Your task to perform on an android device: What's on my calendar tomorrow? Image 0: 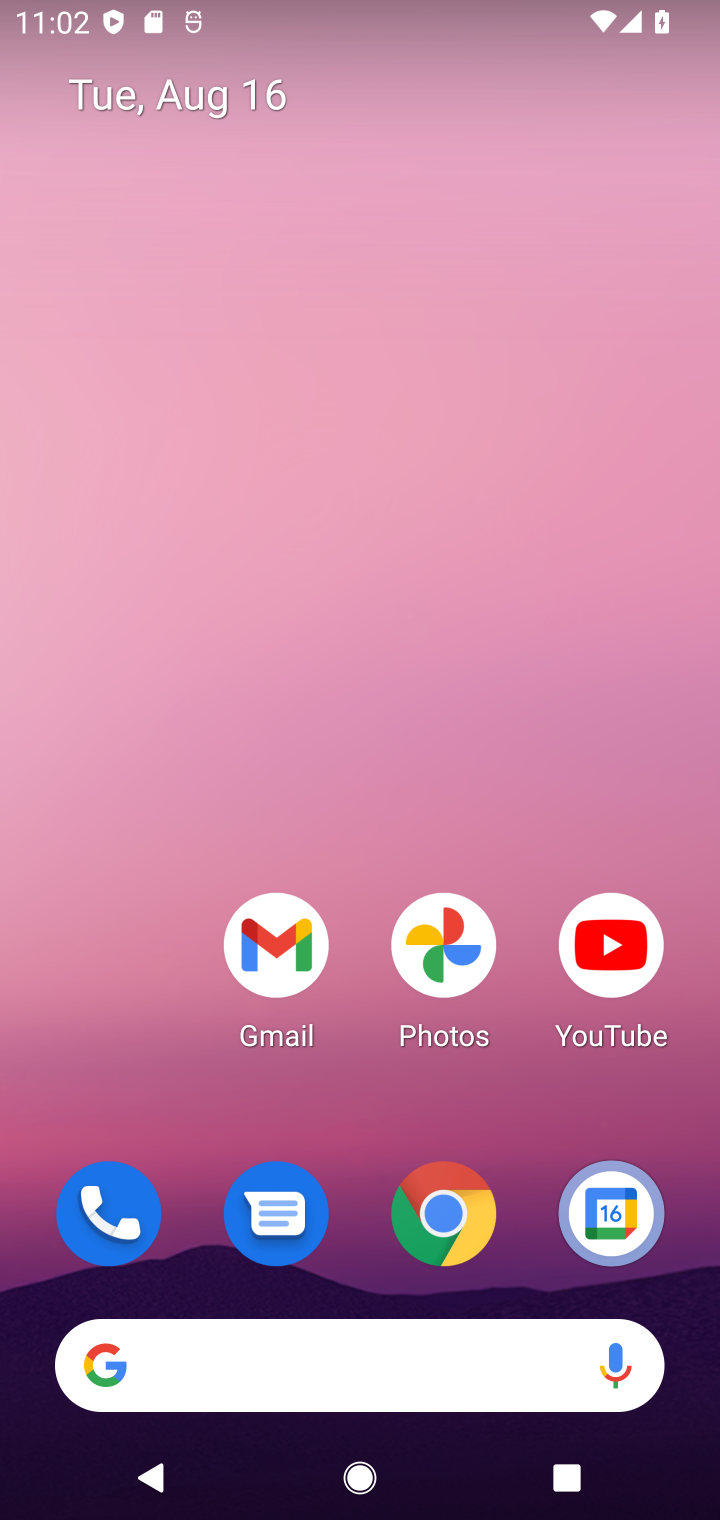
Step 0: drag from (363, 588) to (396, 0)
Your task to perform on an android device: What's on my calendar tomorrow? Image 1: 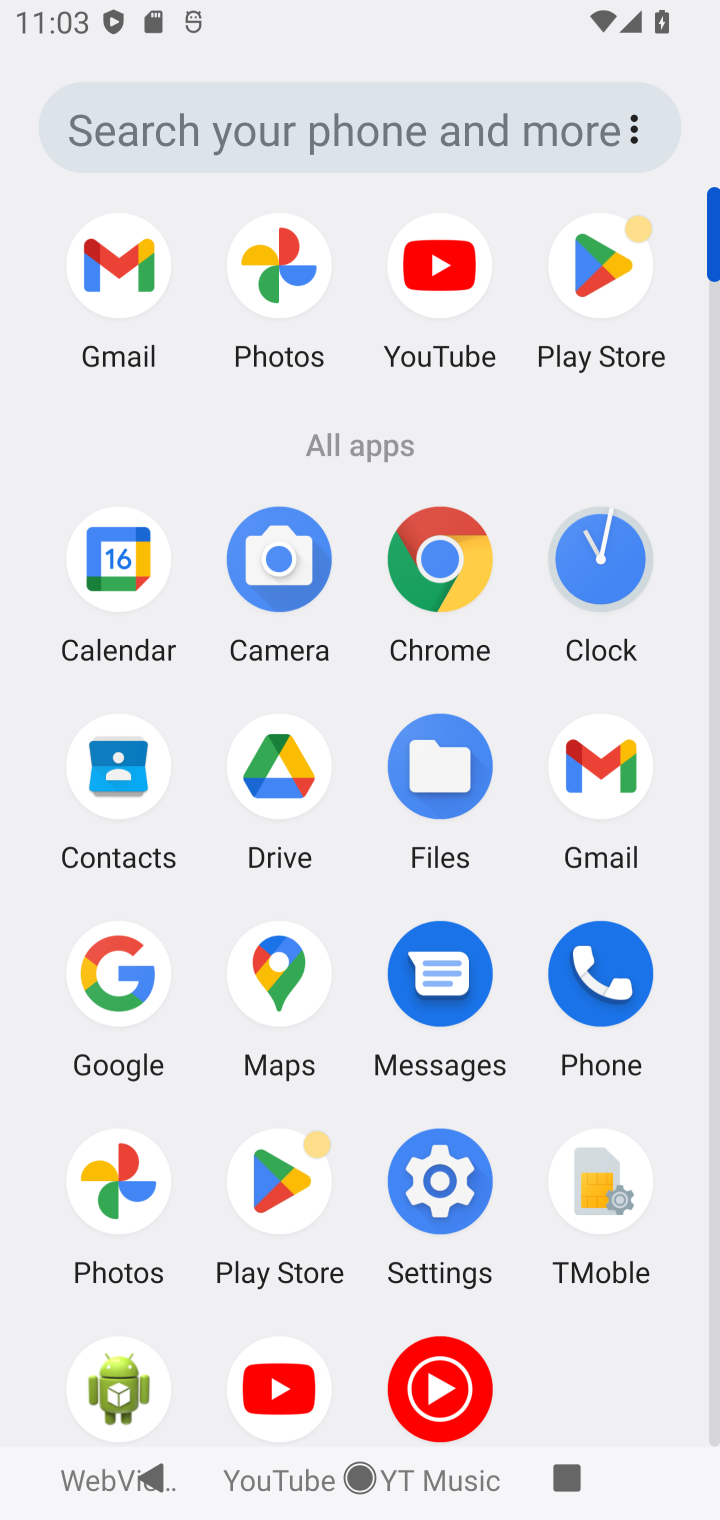
Step 1: click (110, 699)
Your task to perform on an android device: What's on my calendar tomorrow? Image 2: 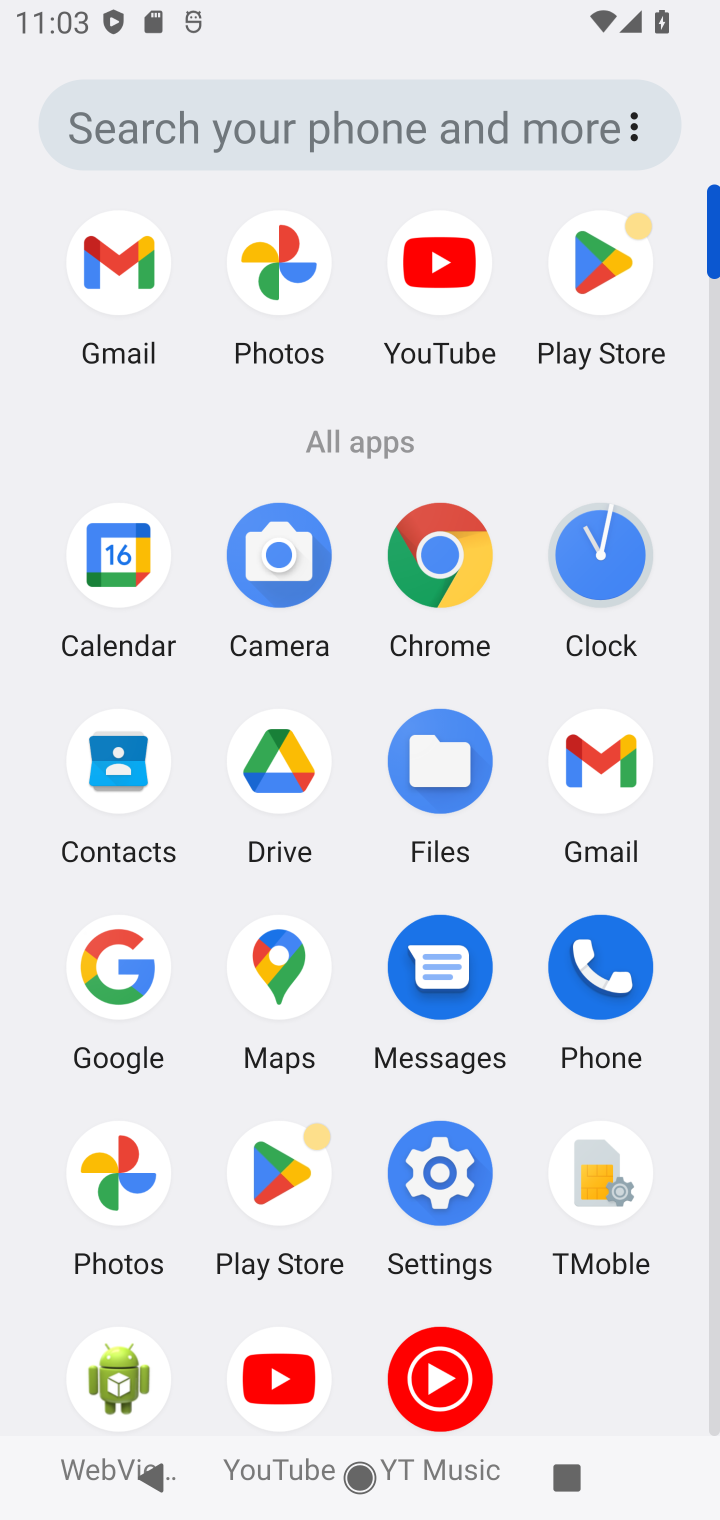
Step 2: click (124, 538)
Your task to perform on an android device: What's on my calendar tomorrow? Image 3: 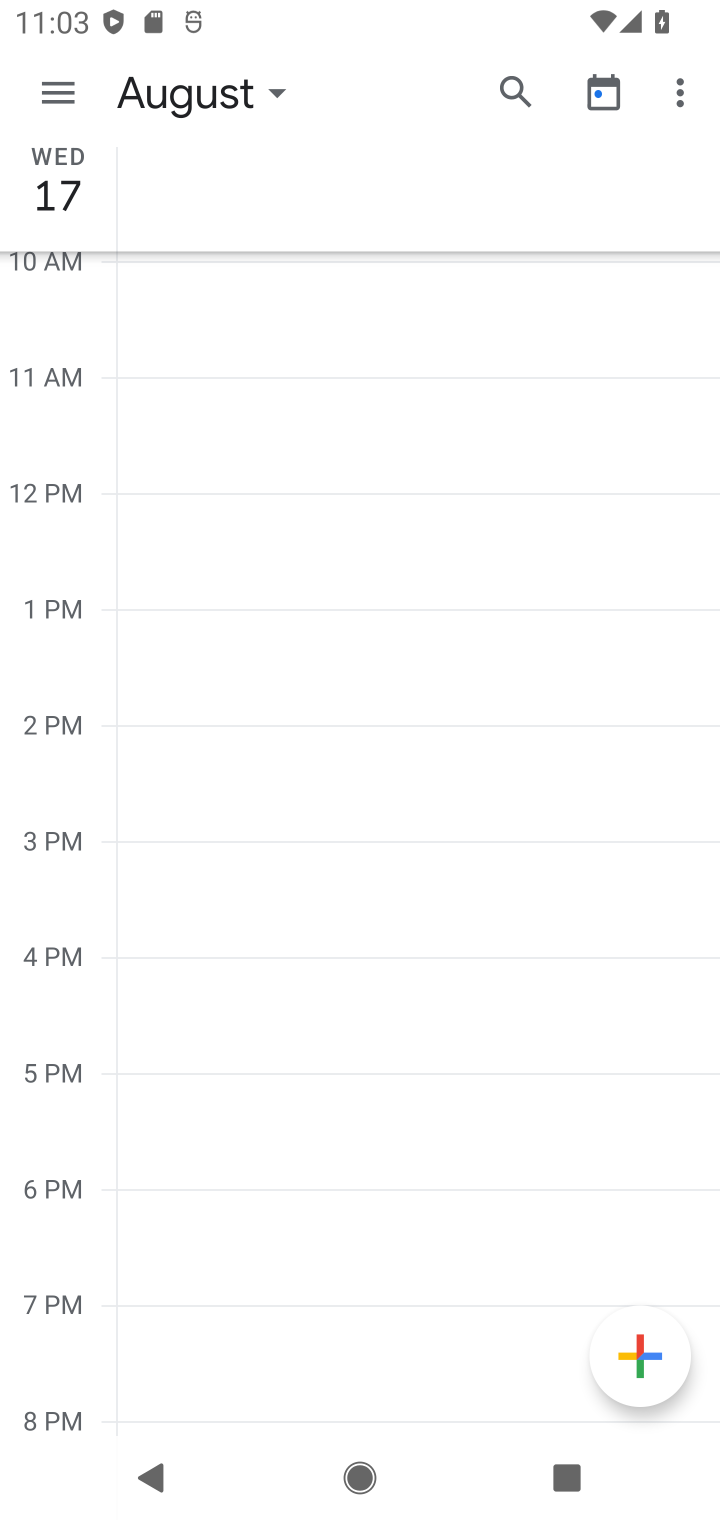
Step 3: task complete